Your task to perform on an android device: manage bookmarks in the chrome app Image 0: 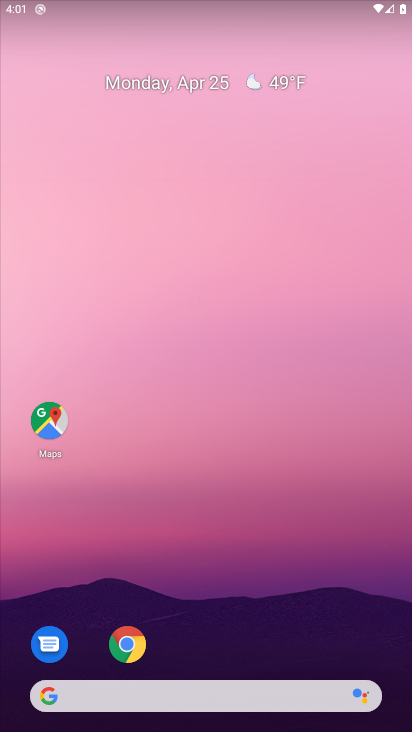
Step 0: click (137, 651)
Your task to perform on an android device: manage bookmarks in the chrome app Image 1: 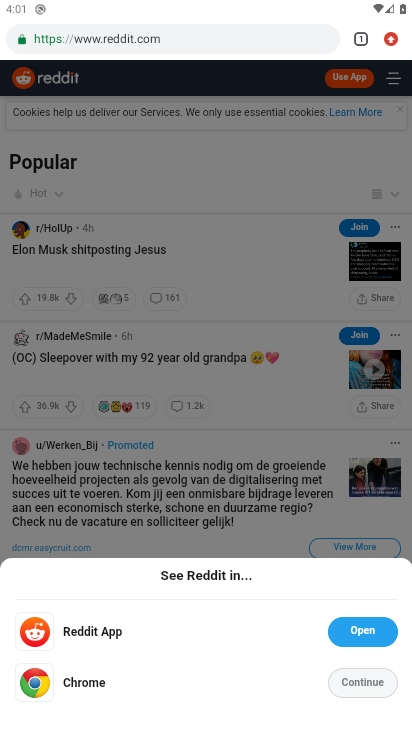
Step 1: task complete